Your task to perform on an android device: When is my next meeting? Image 0: 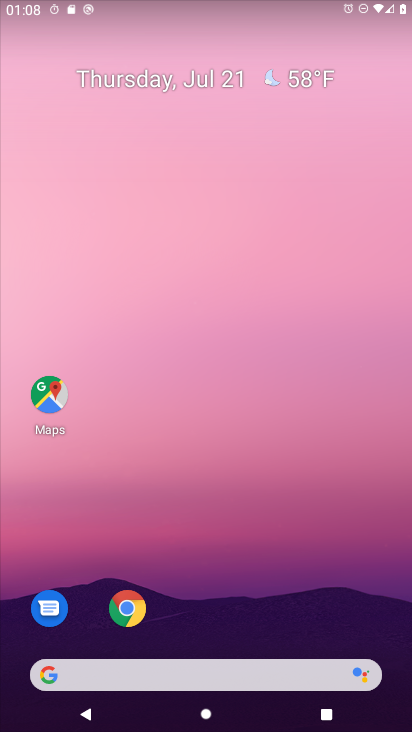
Step 0: press home button
Your task to perform on an android device: When is my next meeting? Image 1: 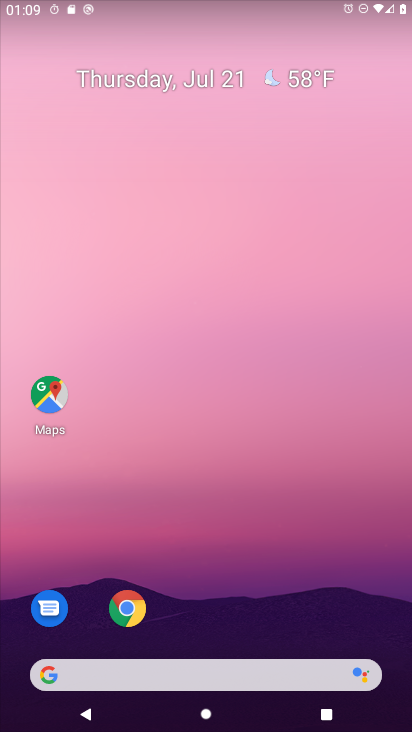
Step 1: drag from (185, 618) to (258, 102)
Your task to perform on an android device: When is my next meeting? Image 2: 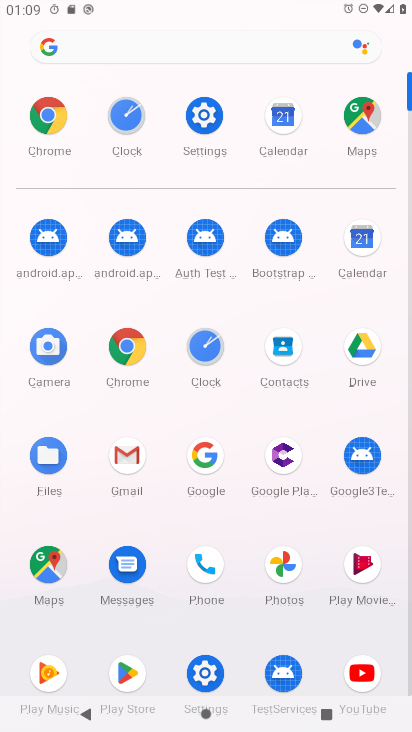
Step 2: click (359, 244)
Your task to perform on an android device: When is my next meeting? Image 3: 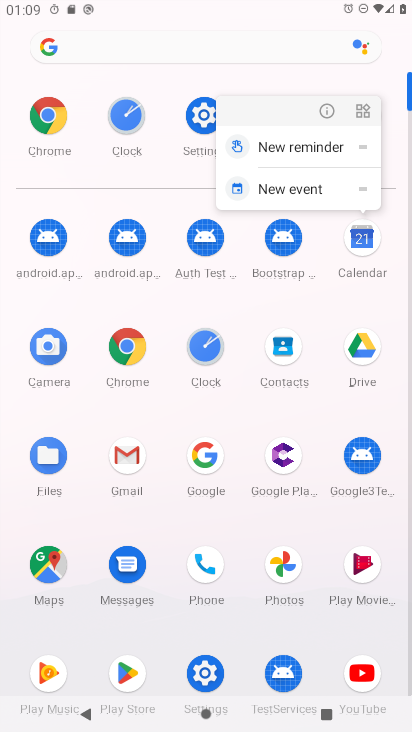
Step 3: click (368, 244)
Your task to perform on an android device: When is my next meeting? Image 4: 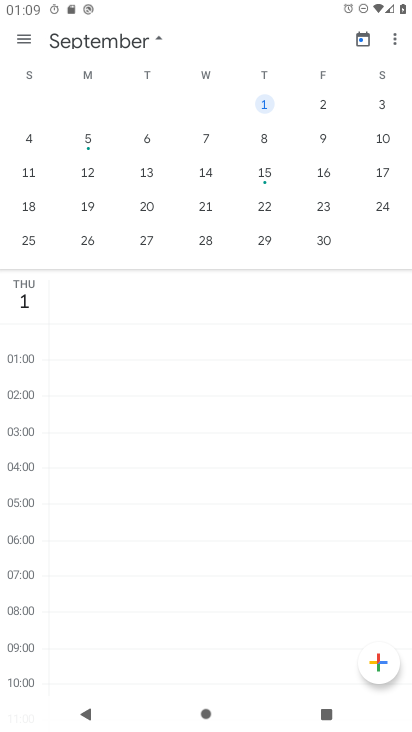
Step 4: click (33, 28)
Your task to perform on an android device: When is my next meeting? Image 5: 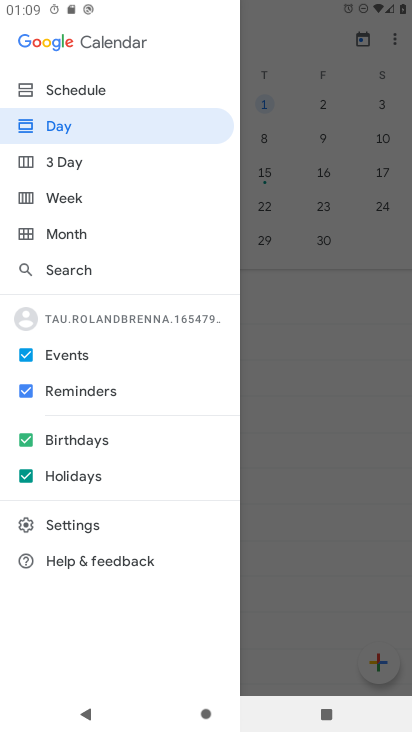
Step 5: click (76, 92)
Your task to perform on an android device: When is my next meeting? Image 6: 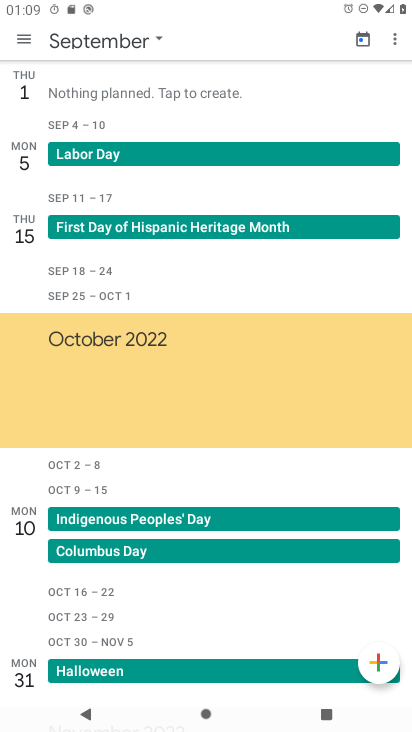
Step 6: task complete